Your task to perform on an android device: Search for sushi restaurants on Maps Image 0: 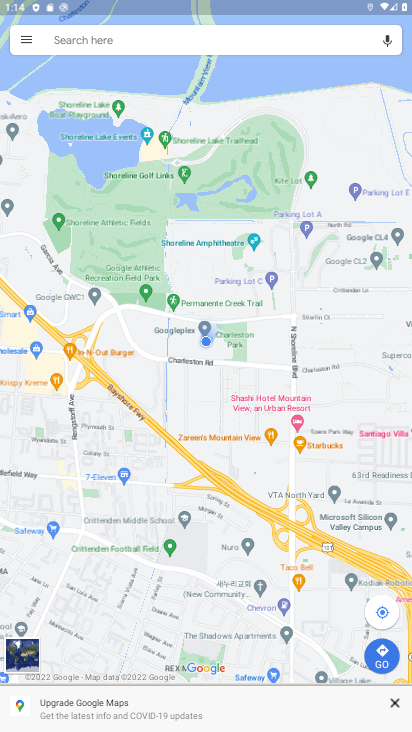
Step 0: press home button
Your task to perform on an android device: Search for sushi restaurants on Maps Image 1: 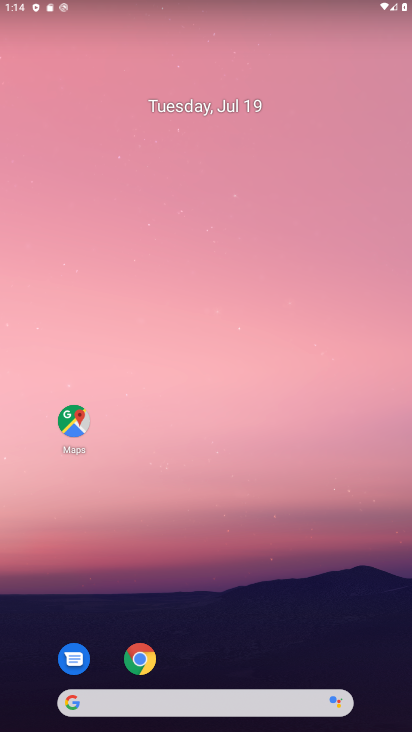
Step 1: click (146, 666)
Your task to perform on an android device: Search for sushi restaurants on Maps Image 2: 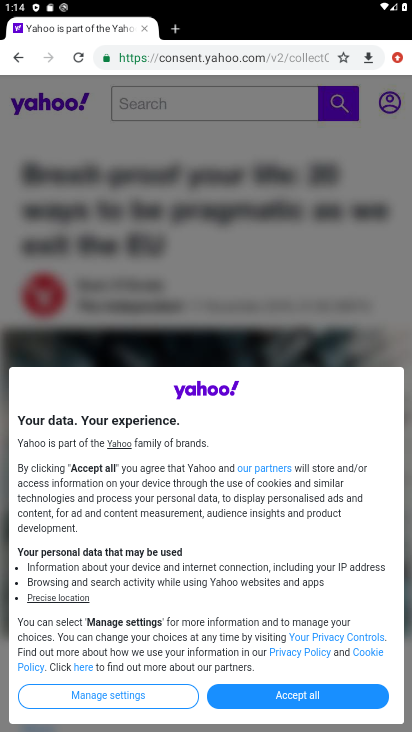
Step 2: click (220, 62)
Your task to perform on an android device: Search for sushi restaurants on Maps Image 3: 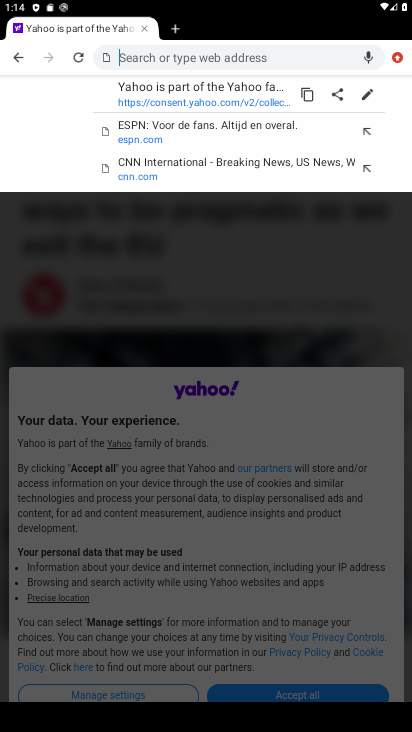
Step 3: type " sushi restaurants"
Your task to perform on an android device: Search for sushi restaurants on Maps Image 4: 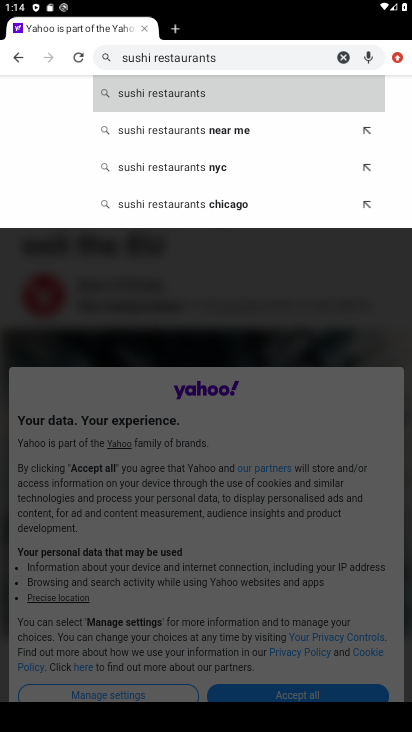
Step 4: click (14, 61)
Your task to perform on an android device: Search for sushi restaurants on Maps Image 5: 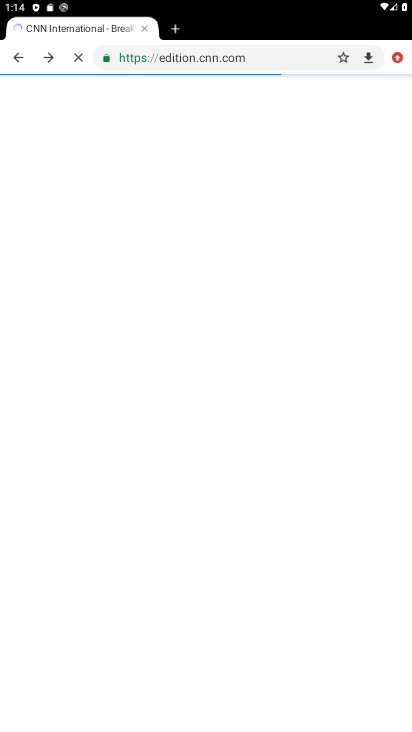
Step 5: press home button
Your task to perform on an android device: Search for sushi restaurants on Maps Image 6: 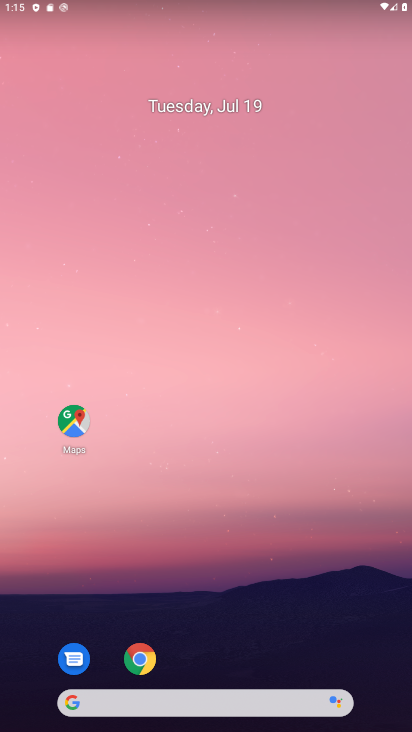
Step 6: drag from (321, 653) to (250, 199)
Your task to perform on an android device: Search for sushi restaurants on Maps Image 7: 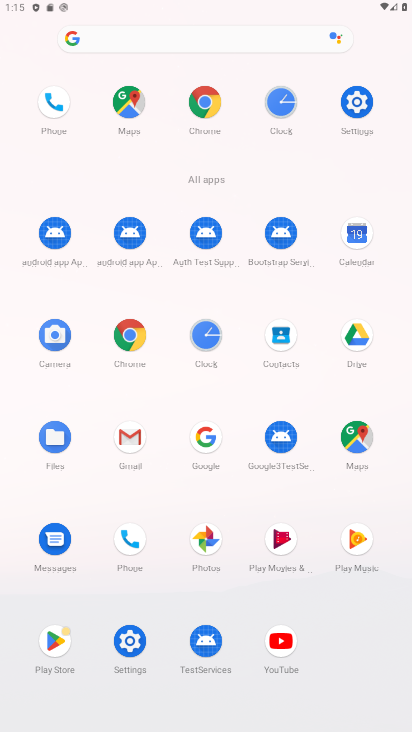
Step 7: click (128, 111)
Your task to perform on an android device: Search for sushi restaurants on Maps Image 8: 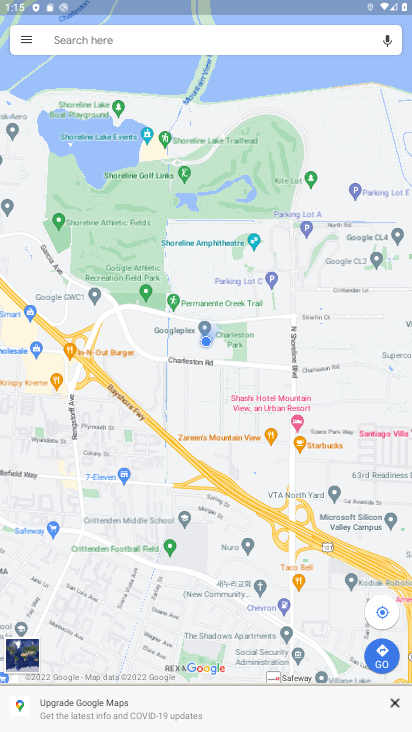
Step 8: click (251, 50)
Your task to perform on an android device: Search for sushi restaurants on Maps Image 9: 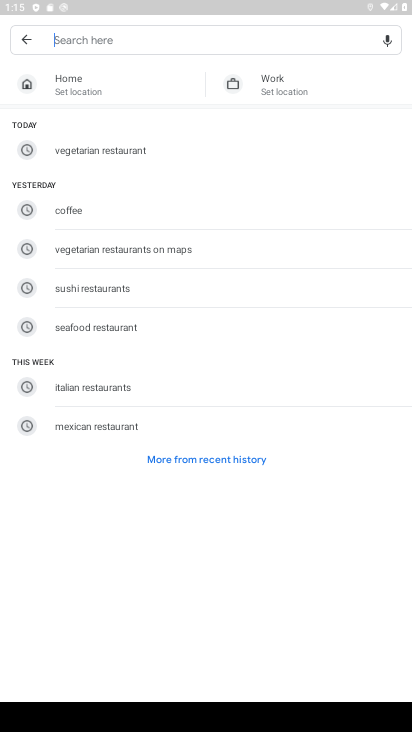
Step 9: type " sushi restaurants"
Your task to perform on an android device: Search for sushi restaurants on Maps Image 10: 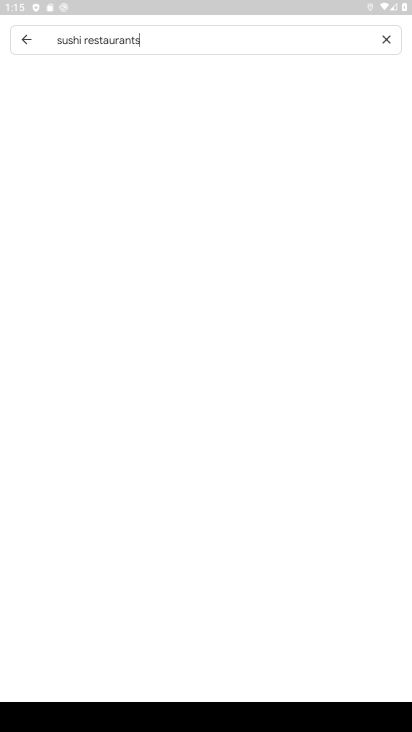
Step 10: type ""
Your task to perform on an android device: Search for sushi restaurants on Maps Image 11: 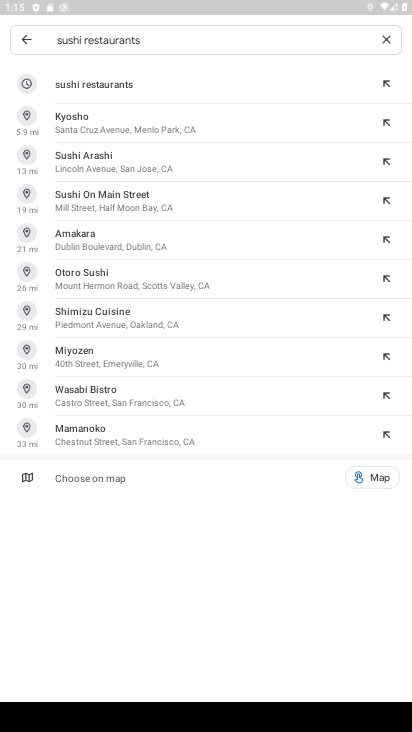
Step 11: click (105, 86)
Your task to perform on an android device: Search for sushi restaurants on Maps Image 12: 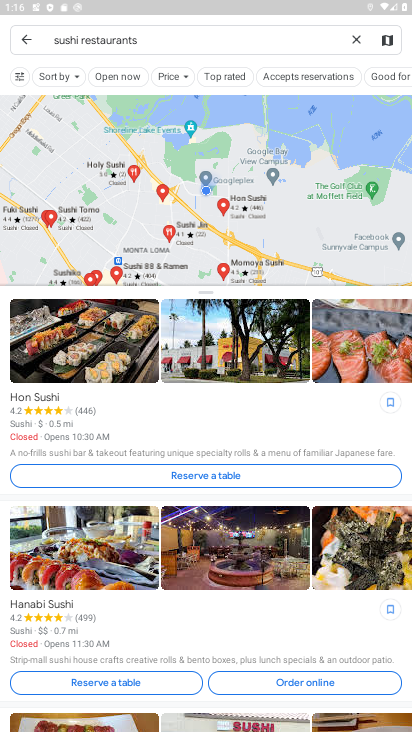
Step 12: task complete